Your task to perform on an android device: delete location history Image 0: 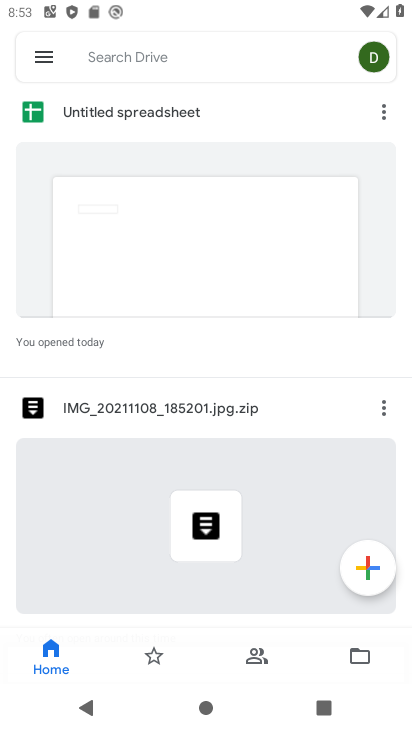
Step 0: press home button
Your task to perform on an android device: delete location history Image 1: 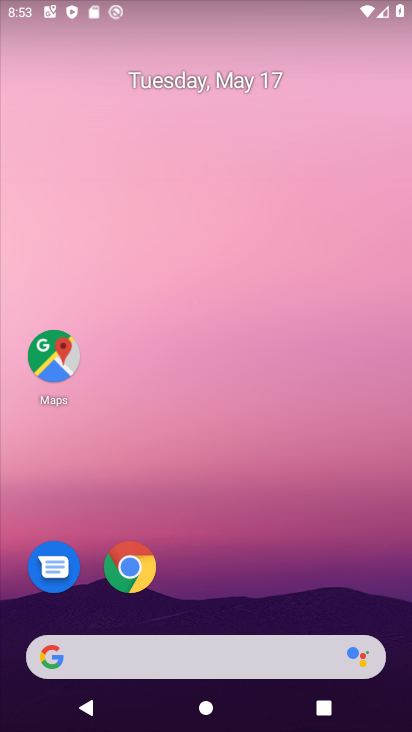
Step 1: drag from (230, 561) to (163, 181)
Your task to perform on an android device: delete location history Image 2: 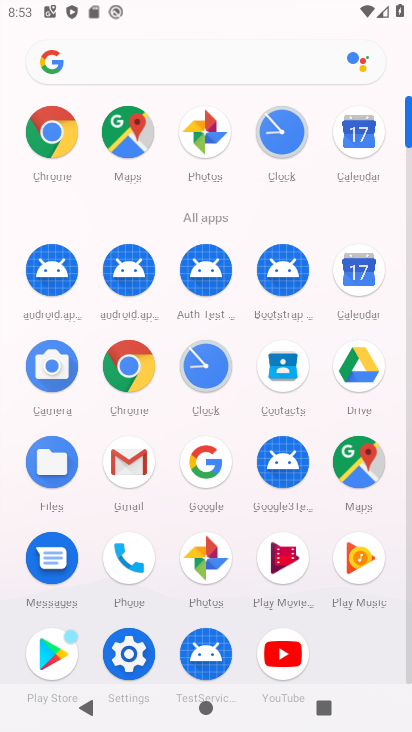
Step 2: click (122, 142)
Your task to perform on an android device: delete location history Image 3: 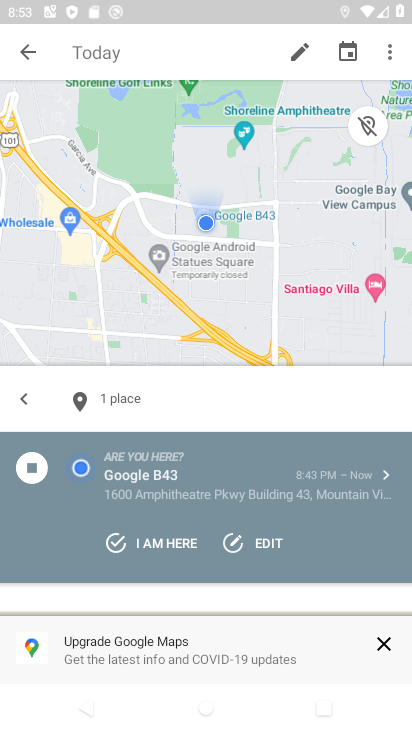
Step 3: click (386, 49)
Your task to perform on an android device: delete location history Image 4: 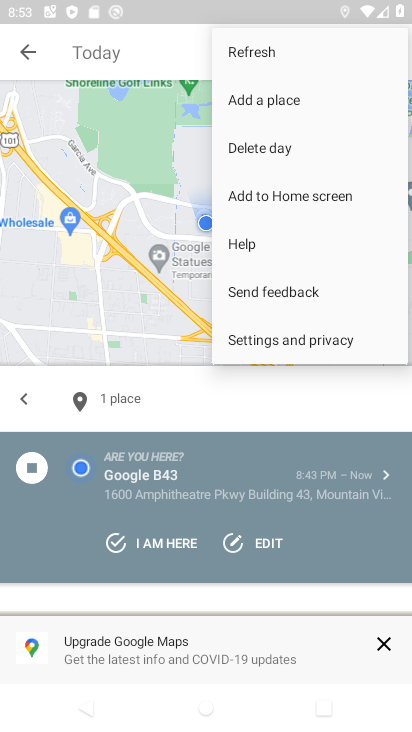
Step 4: click (291, 337)
Your task to perform on an android device: delete location history Image 5: 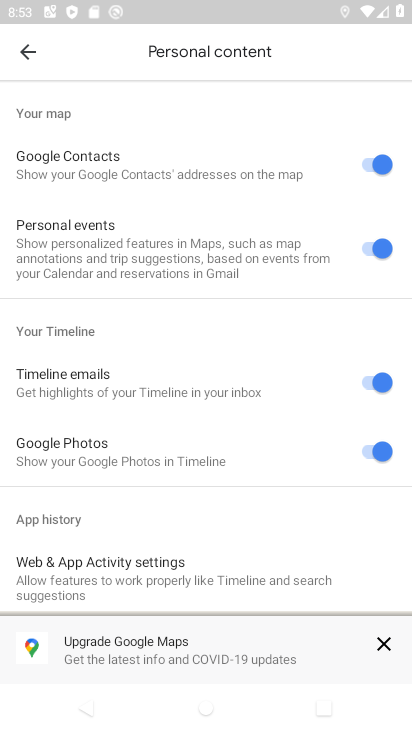
Step 5: drag from (234, 513) to (167, 214)
Your task to perform on an android device: delete location history Image 6: 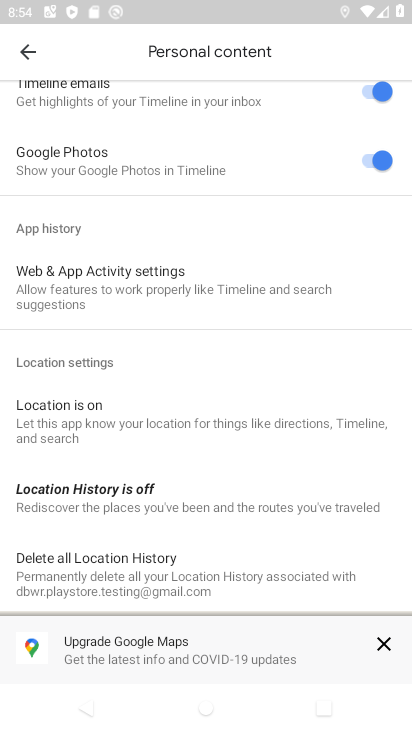
Step 6: drag from (243, 459) to (217, 214)
Your task to perform on an android device: delete location history Image 7: 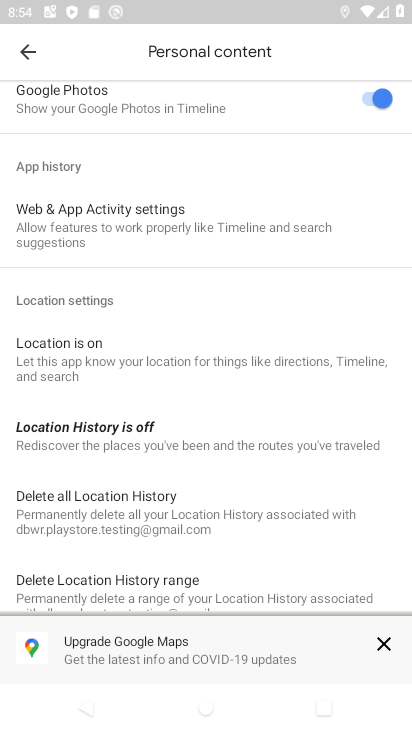
Step 7: click (94, 497)
Your task to perform on an android device: delete location history Image 8: 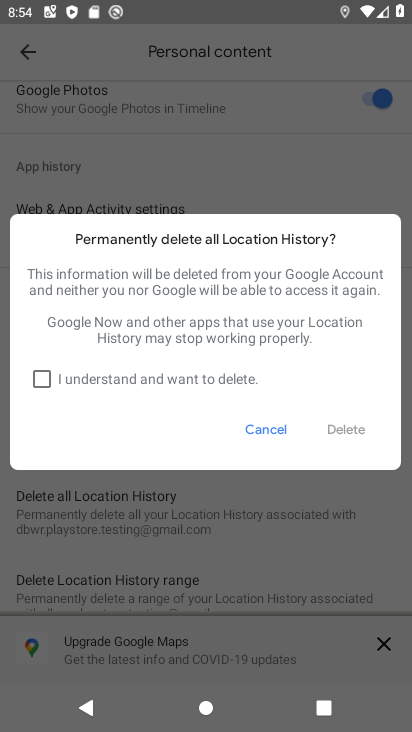
Step 8: click (38, 380)
Your task to perform on an android device: delete location history Image 9: 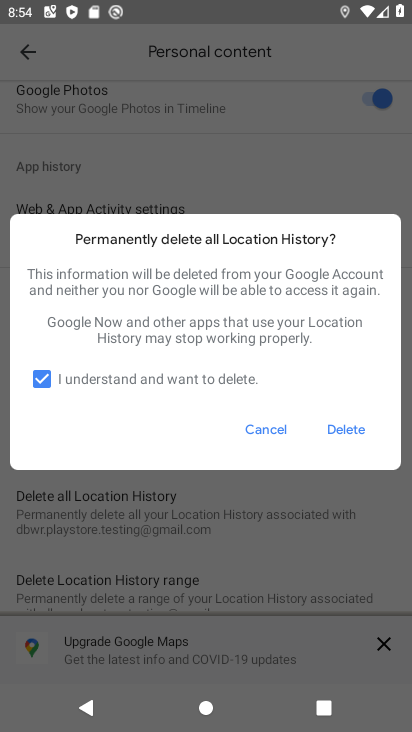
Step 9: click (347, 426)
Your task to perform on an android device: delete location history Image 10: 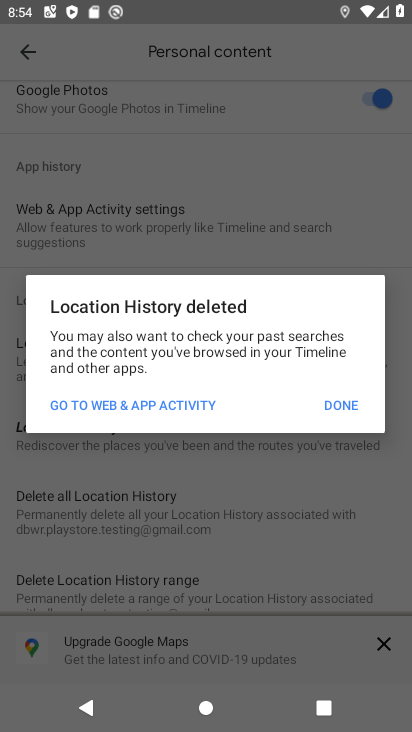
Step 10: click (332, 404)
Your task to perform on an android device: delete location history Image 11: 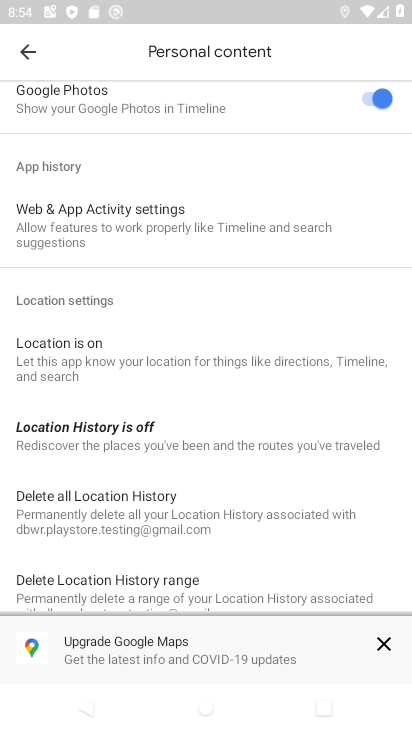
Step 11: task complete